Your task to perform on an android device: What's the price of the new iPhone Image 0: 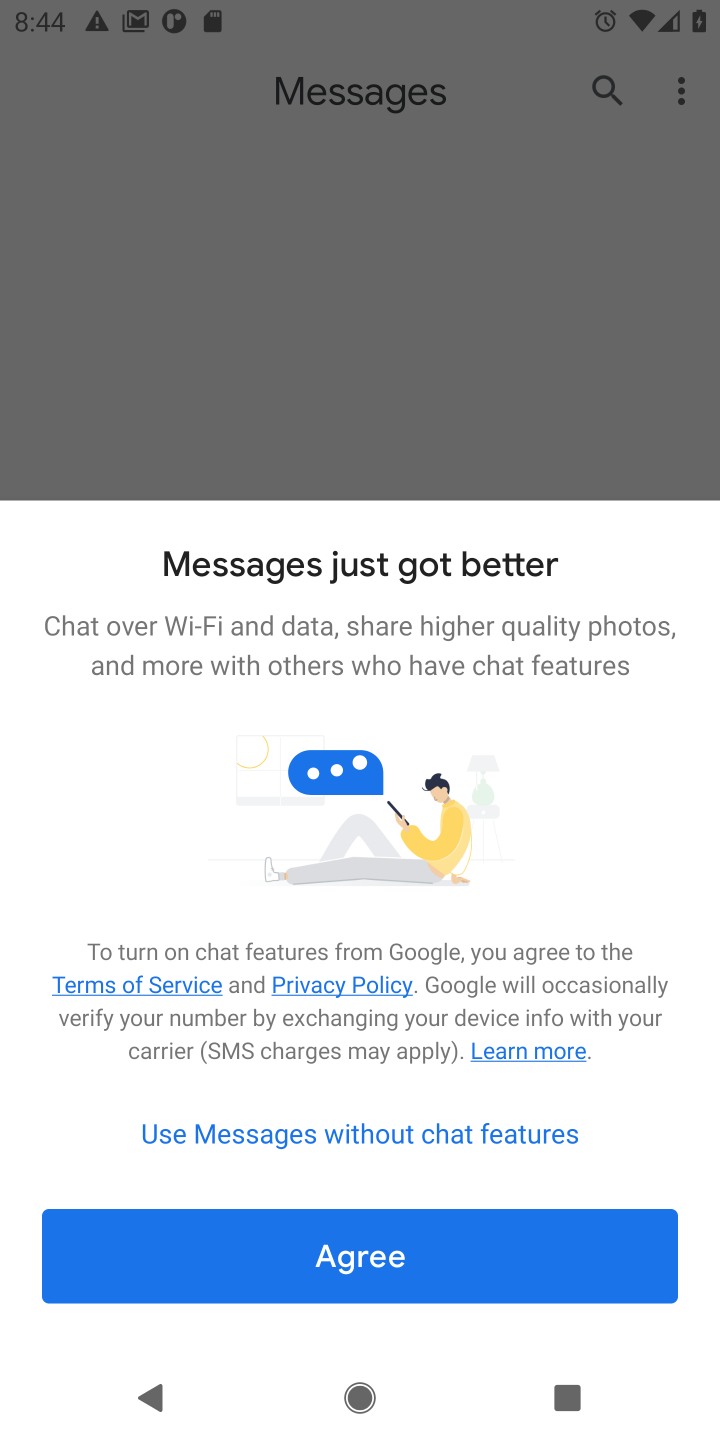
Step 0: press home button
Your task to perform on an android device: What's the price of the new iPhone Image 1: 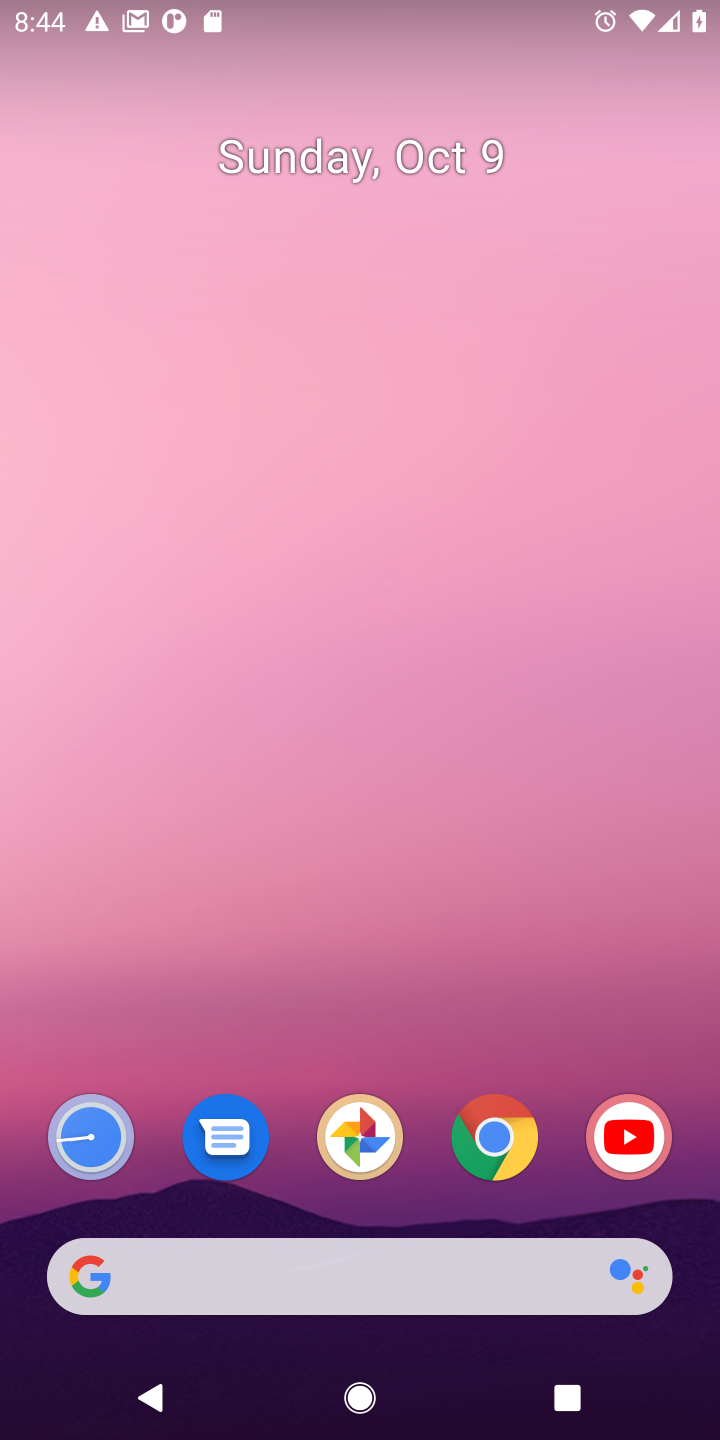
Step 1: click (491, 1135)
Your task to perform on an android device: What's the price of the new iPhone Image 2: 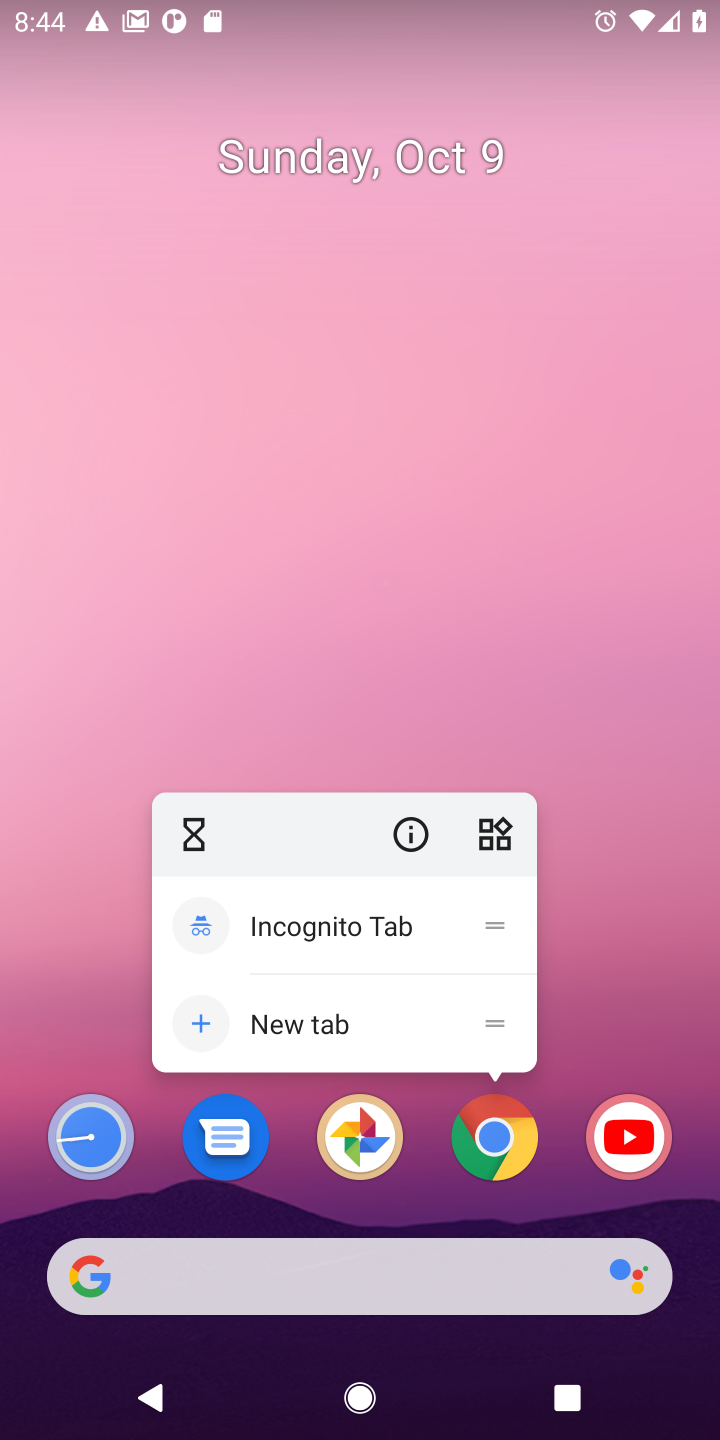
Step 2: click (499, 1122)
Your task to perform on an android device: What's the price of the new iPhone Image 3: 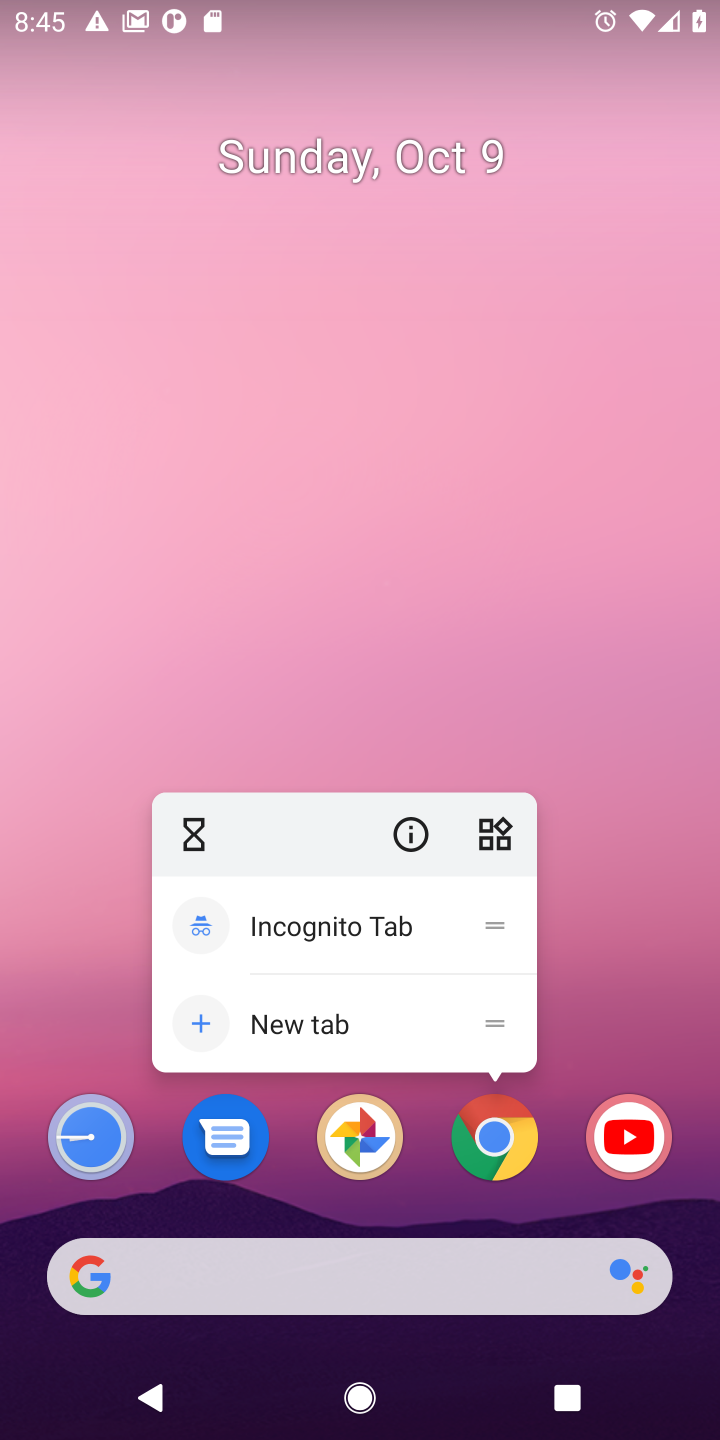
Step 3: click (502, 1149)
Your task to perform on an android device: What's the price of the new iPhone Image 4: 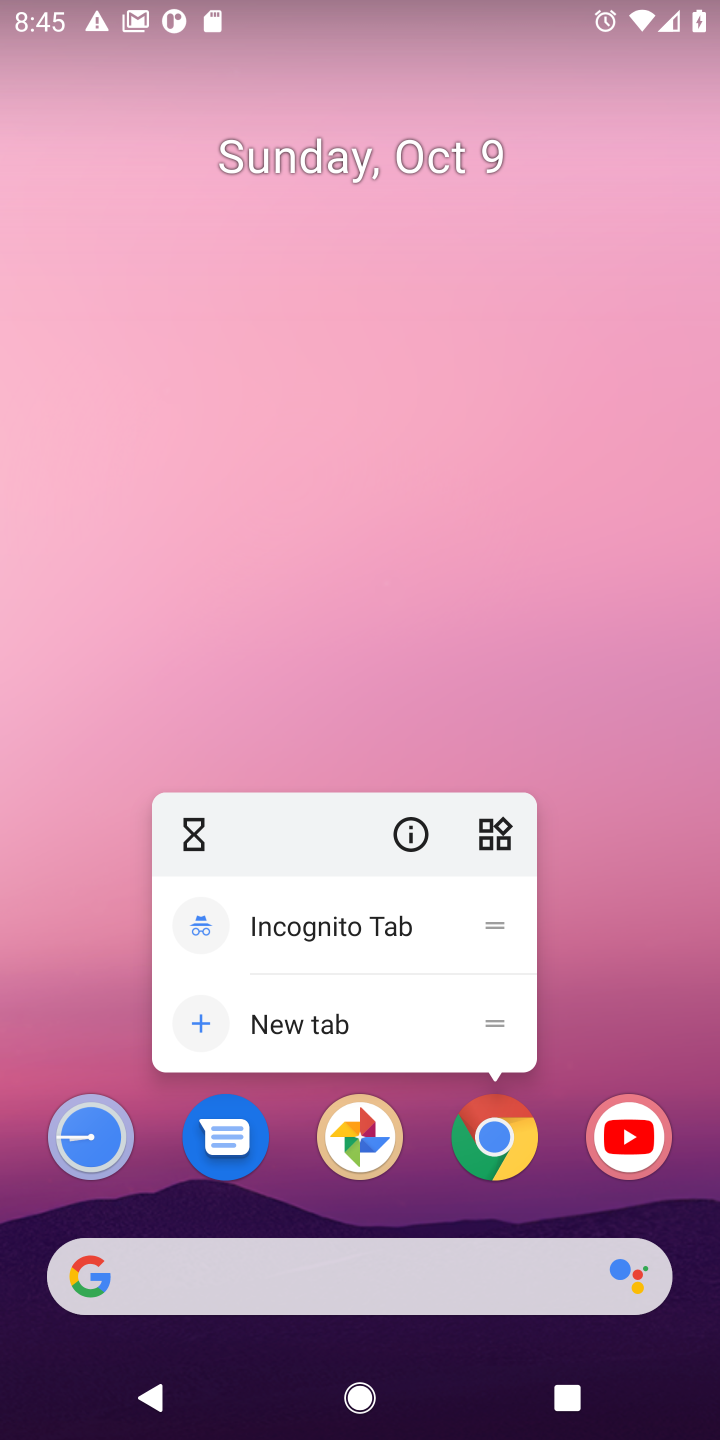
Step 4: click (410, 686)
Your task to perform on an android device: What's the price of the new iPhone Image 5: 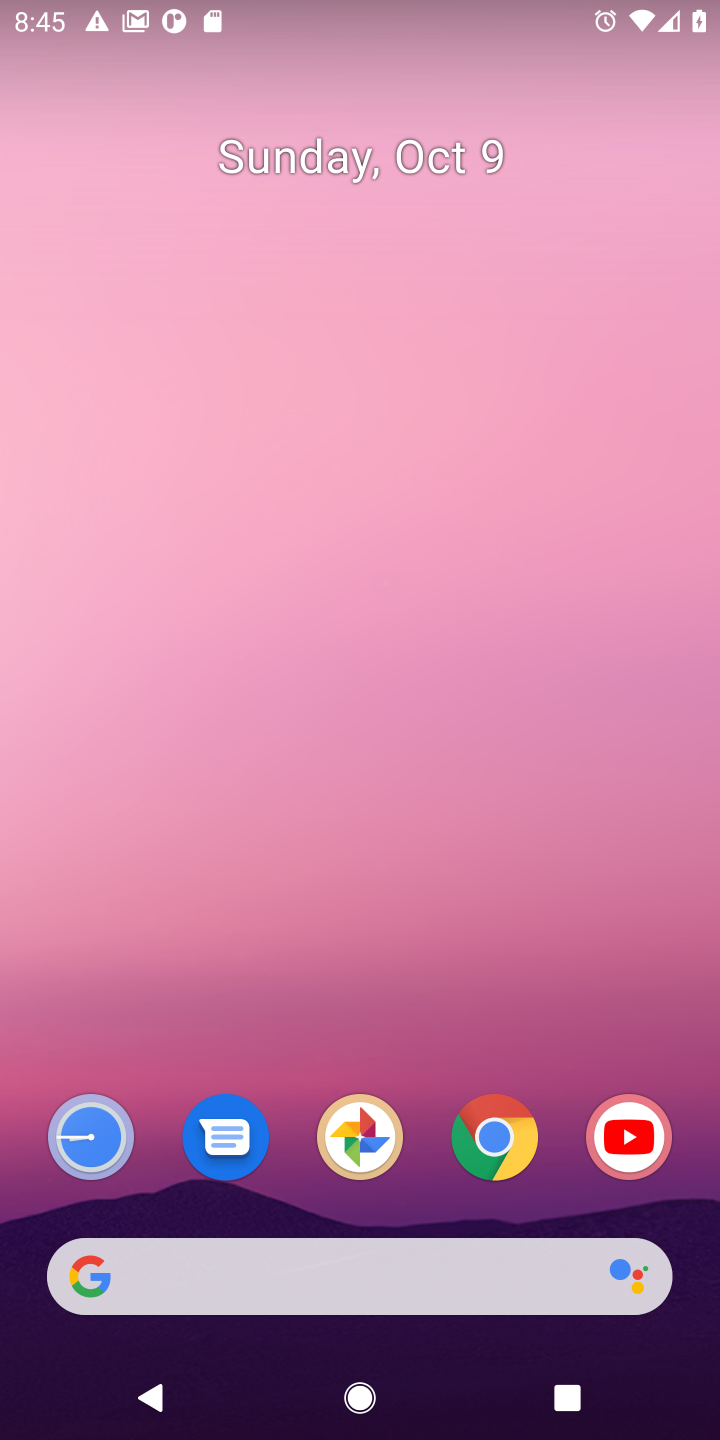
Step 5: click (158, 1112)
Your task to perform on an android device: What's the price of the new iPhone Image 6: 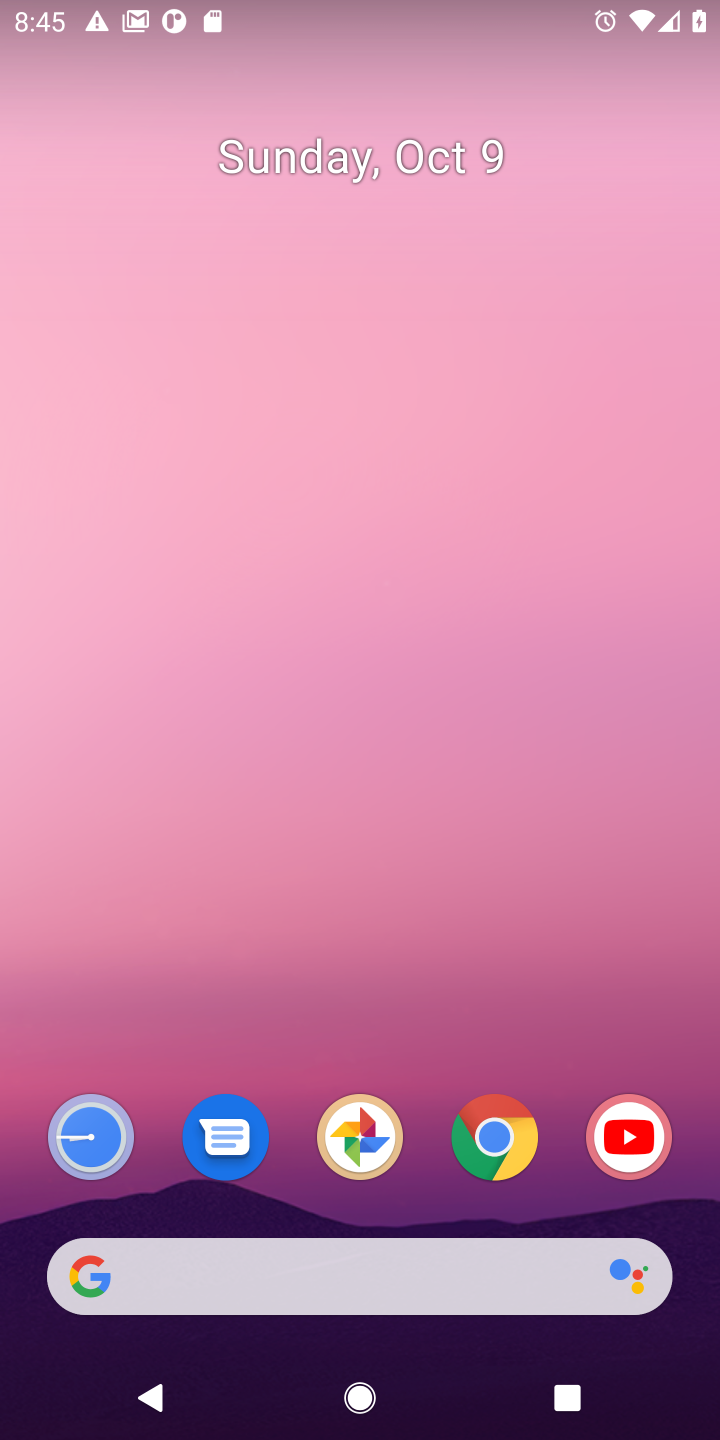
Step 6: drag from (495, 1146) to (415, 1302)
Your task to perform on an android device: What's the price of the new iPhone Image 7: 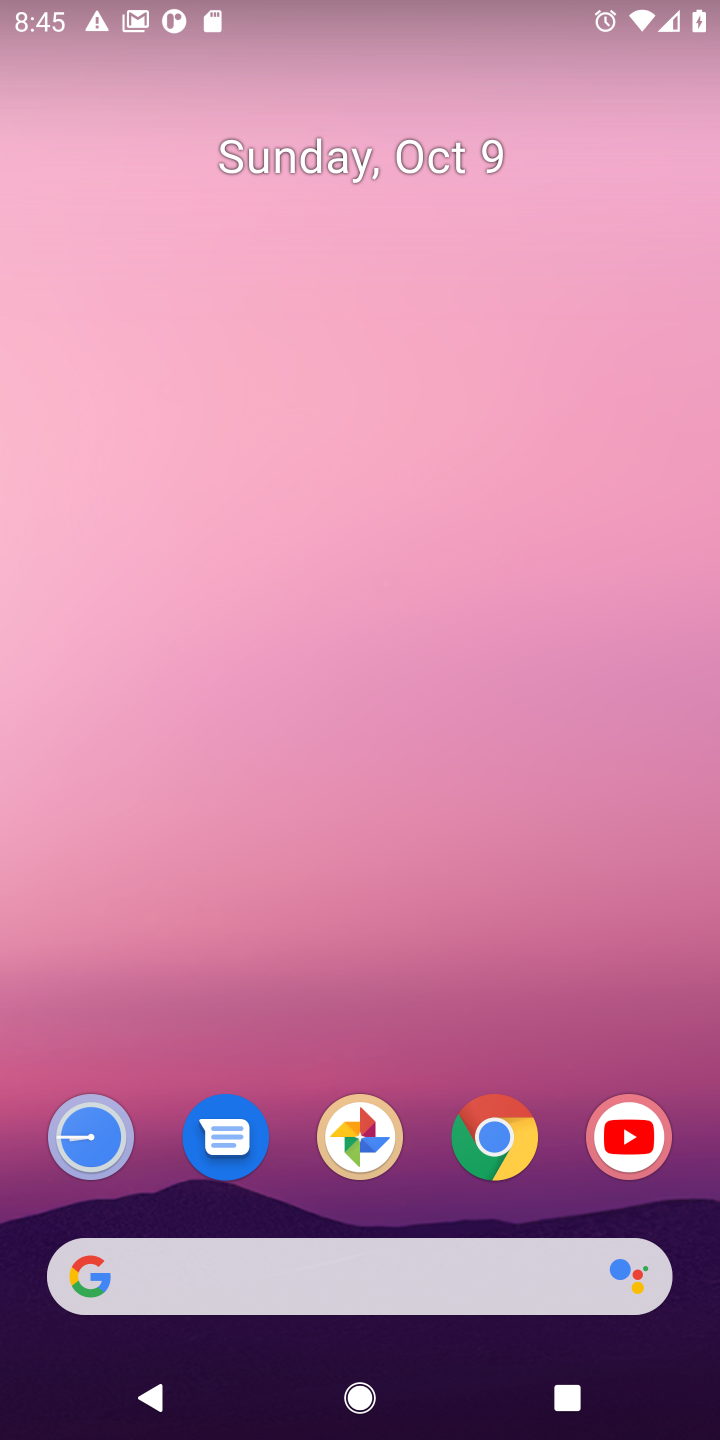
Step 7: click (483, 1157)
Your task to perform on an android device: What's the price of the new iPhone Image 8: 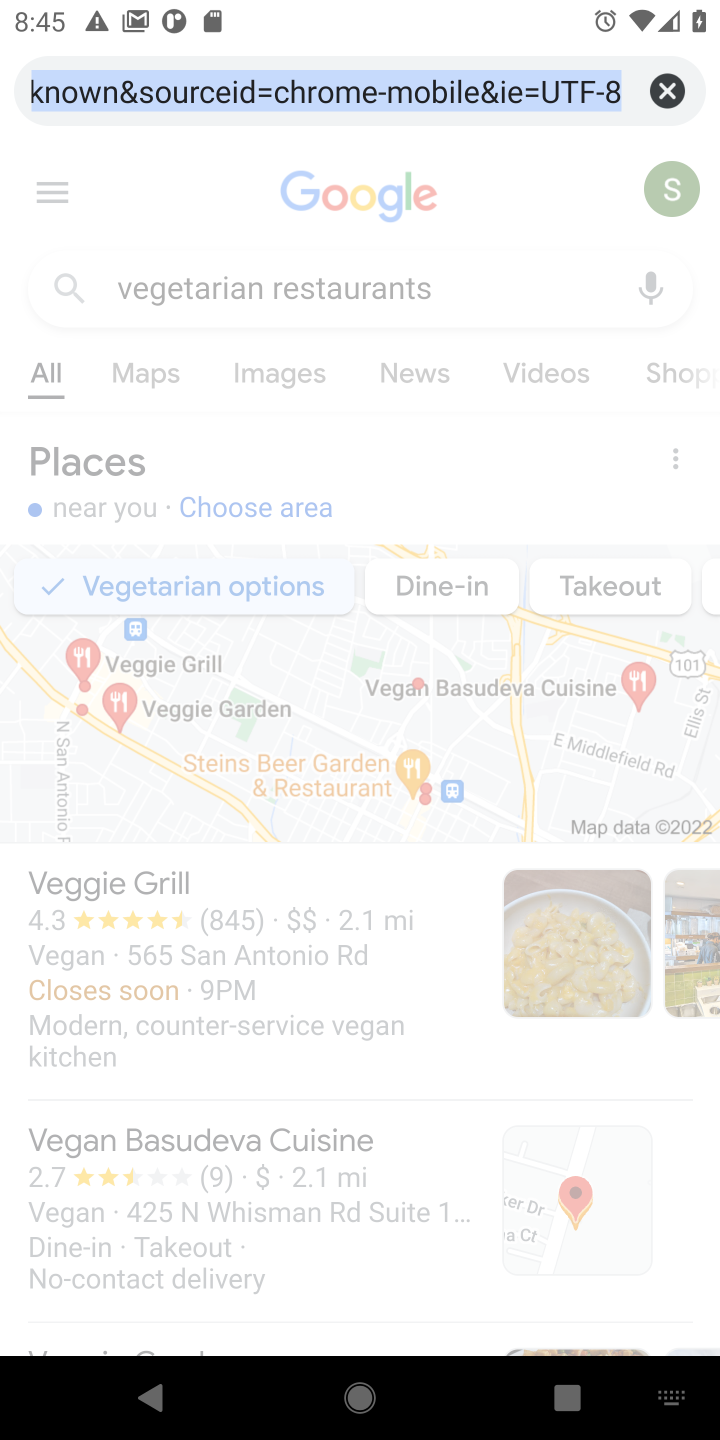
Step 8: click (663, 97)
Your task to perform on an android device: What's the price of the new iPhone Image 9: 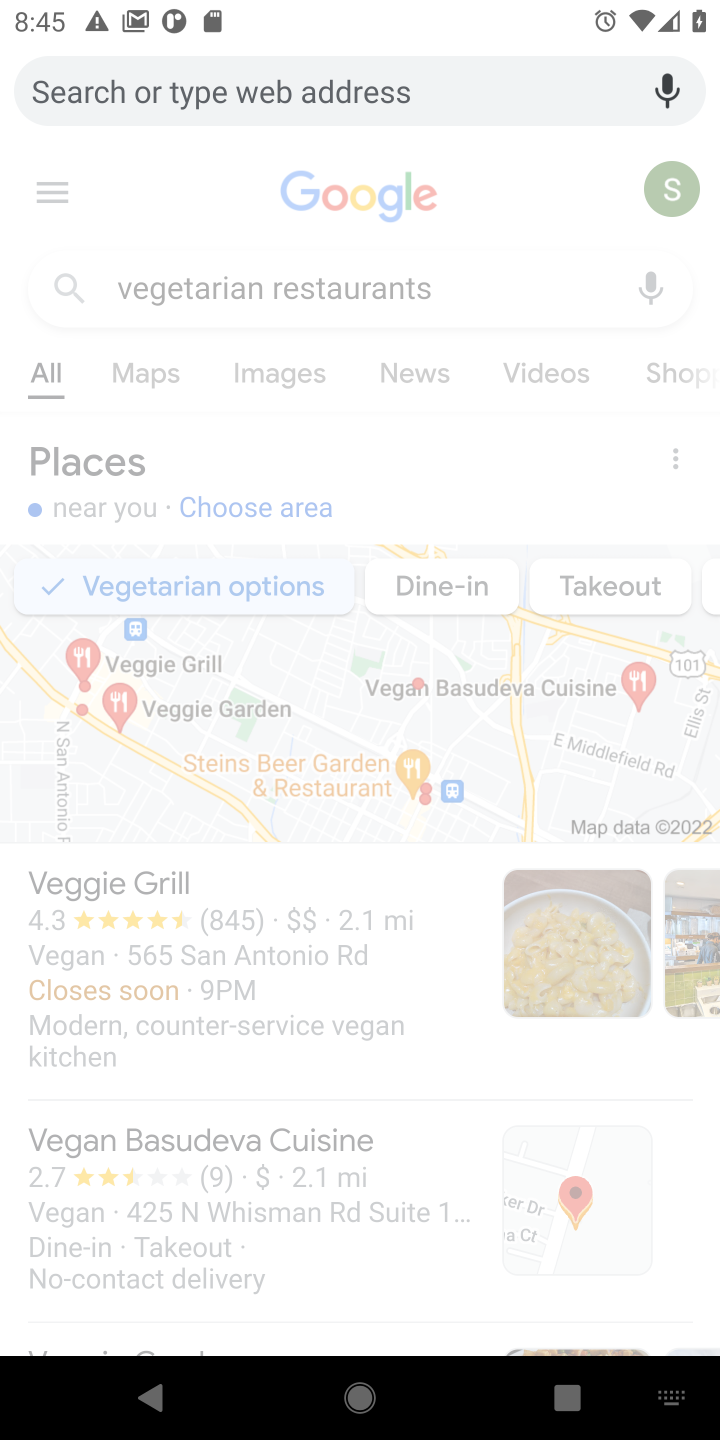
Step 9: click (351, 44)
Your task to perform on an android device: What's the price of the new iPhone Image 10: 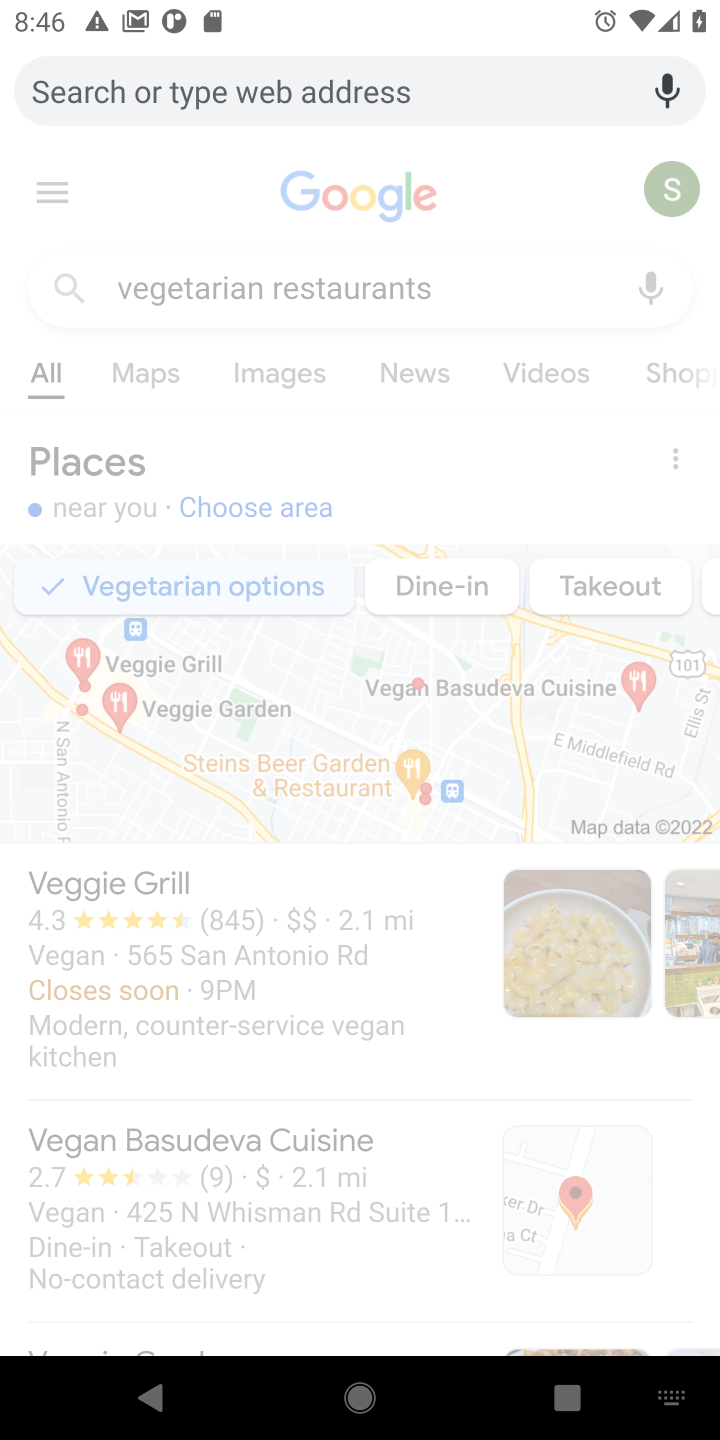
Step 10: type "What's the price of the new iPhone"
Your task to perform on an android device: What's the price of the new iPhone Image 11: 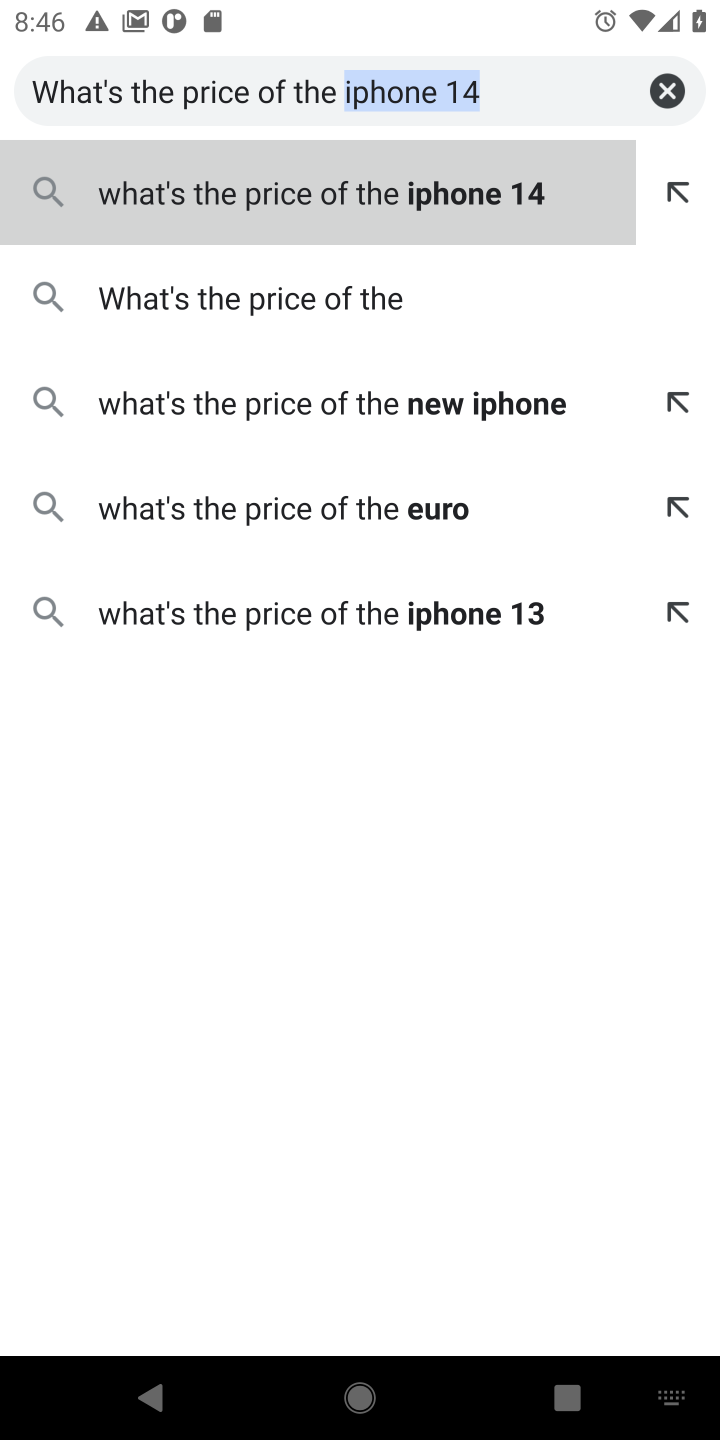
Step 11: click (351, 177)
Your task to perform on an android device: What's the price of the new iPhone Image 12: 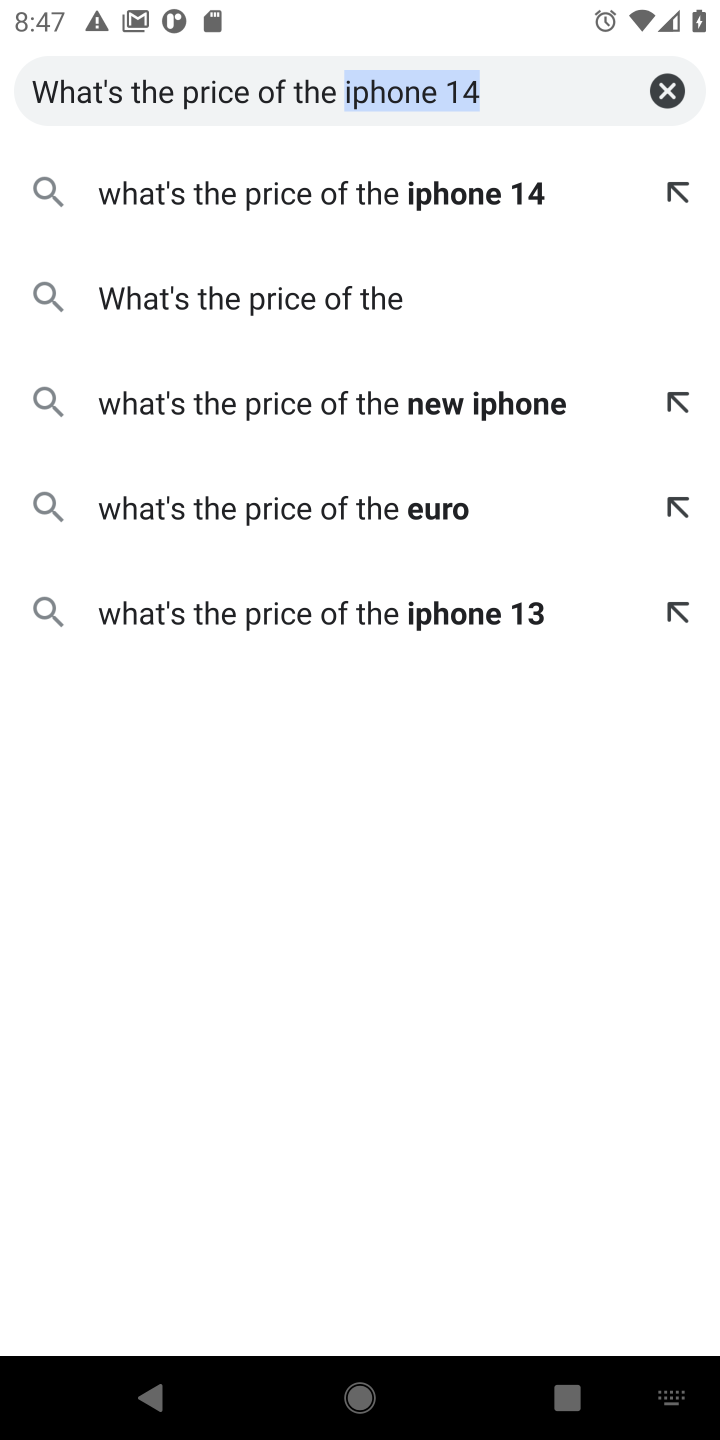
Step 12: click (474, 187)
Your task to perform on an android device: What's the price of the new iPhone Image 13: 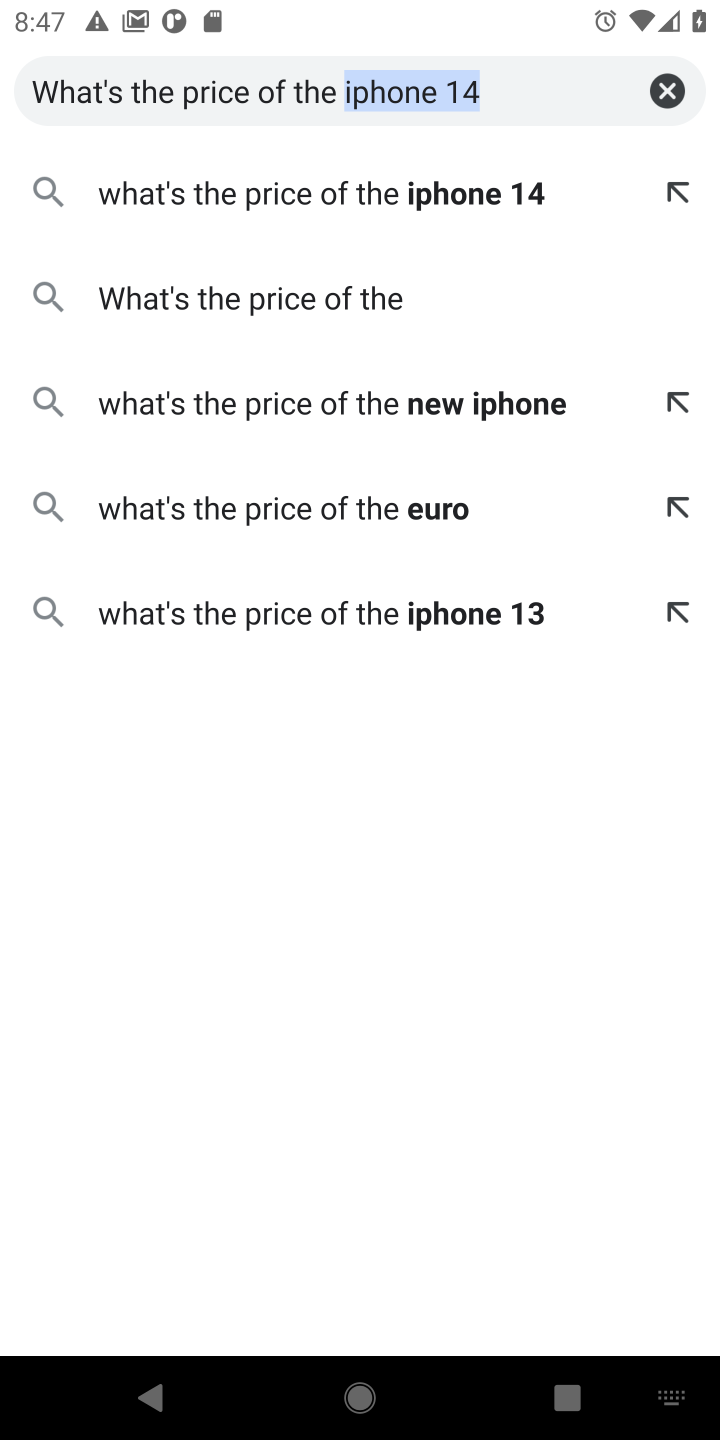
Step 13: click (318, 193)
Your task to perform on an android device: What's the price of the new iPhone Image 14: 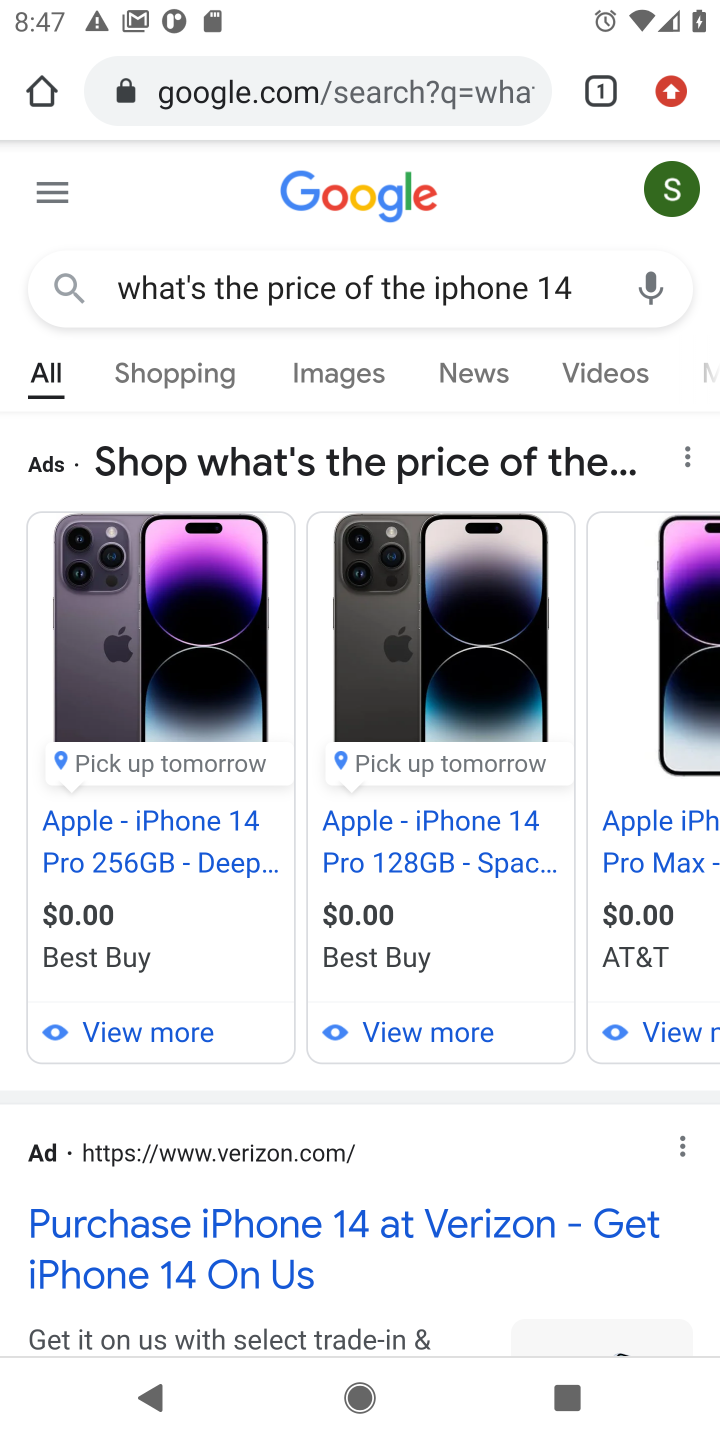
Step 14: task complete